Your task to perform on an android device: Show me the alarms in the clock app Image 0: 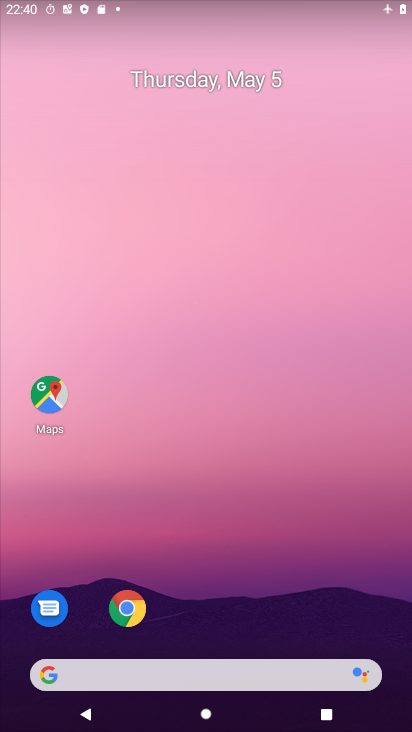
Step 0: drag from (337, 656) to (336, 0)
Your task to perform on an android device: Show me the alarms in the clock app Image 1: 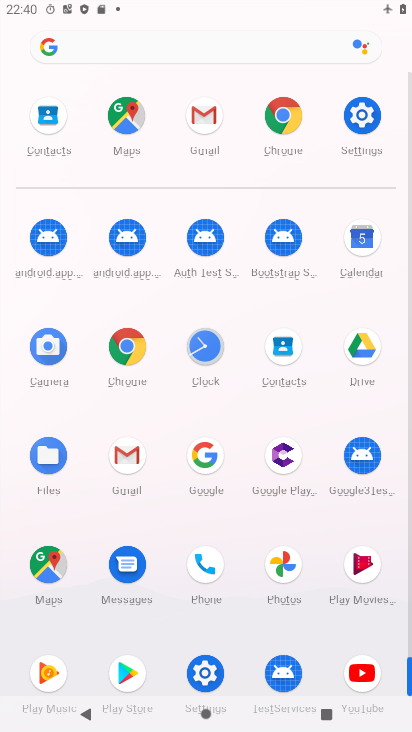
Step 1: click (210, 347)
Your task to perform on an android device: Show me the alarms in the clock app Image 2: 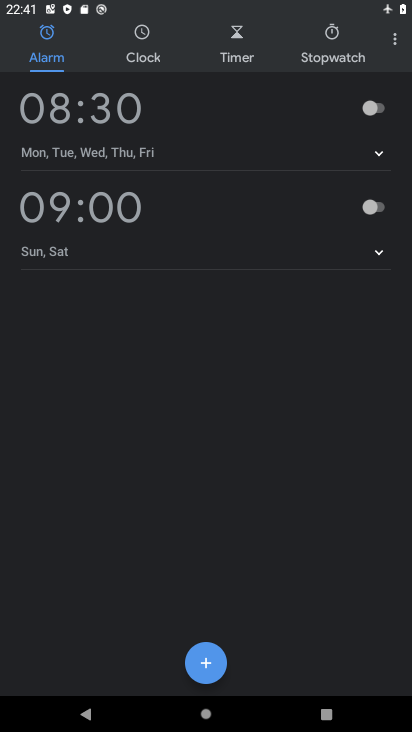
Step 2: click (54, 33)
Your task to perform on an android device: Show me the alarms in the clock app Image 3: 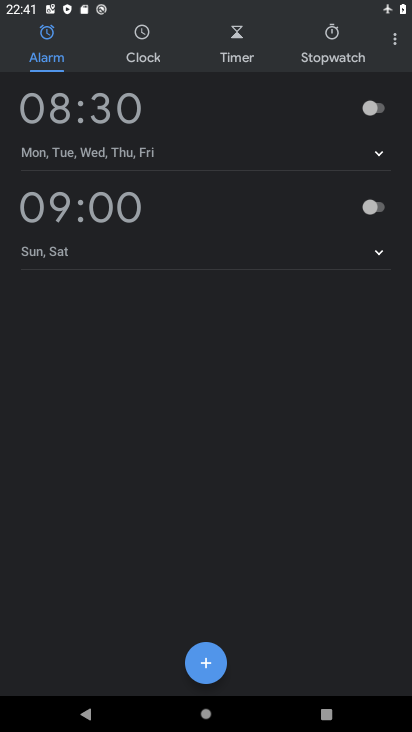
Step 3: task complete